Your task to perform on an android device: Go to CNN.com Image 0: 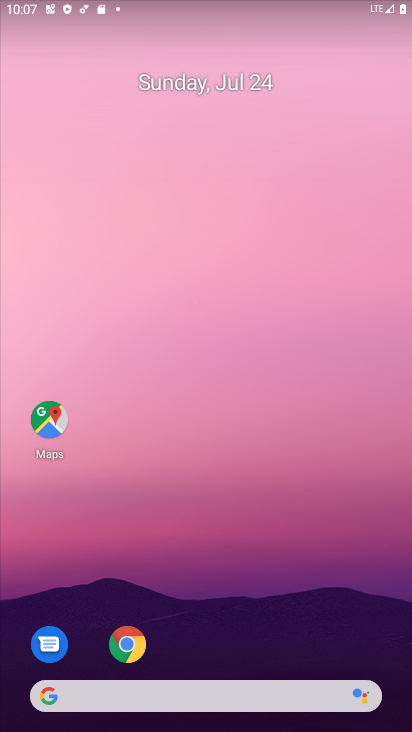
Step 0: click (135, 643)
Your task to perform on an android device: Go to CNN.com Image 1: 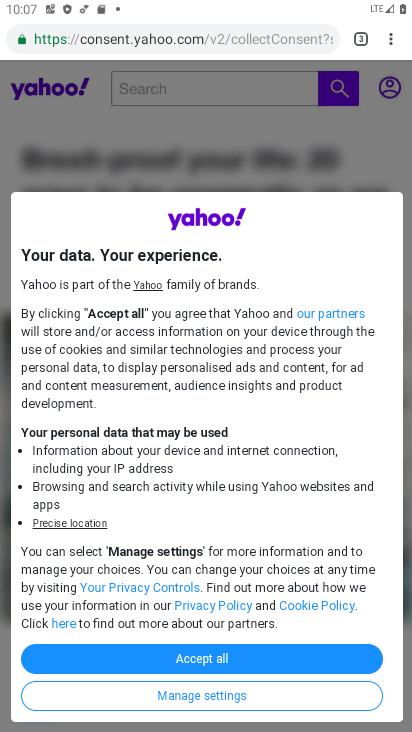
Step 1: press back button
Your task to perform on an android device: Go to CNN.com Image 2: 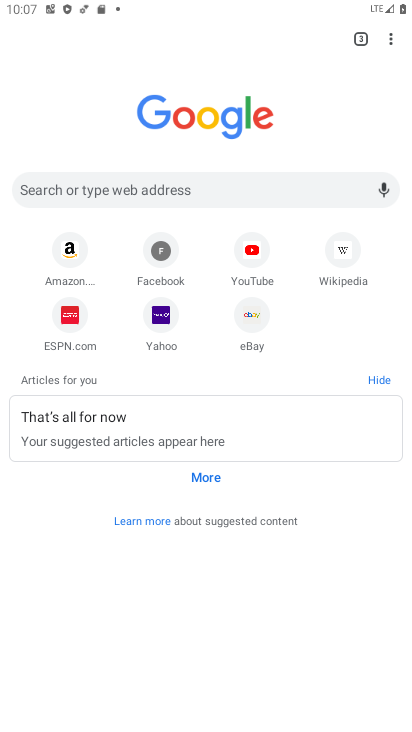
Step 2: click (144, 178)
Your task to perform on an android device: Go to CNN.com Image 3: 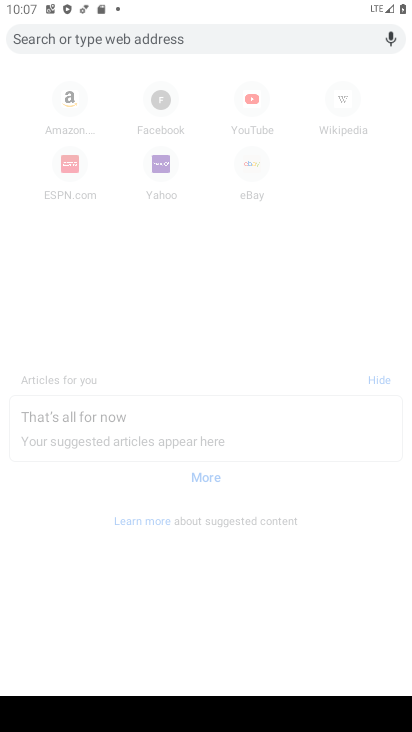
Step 3: type "CNN.com"
Your task to perform on an android device: Go to CNN.com Image 4: 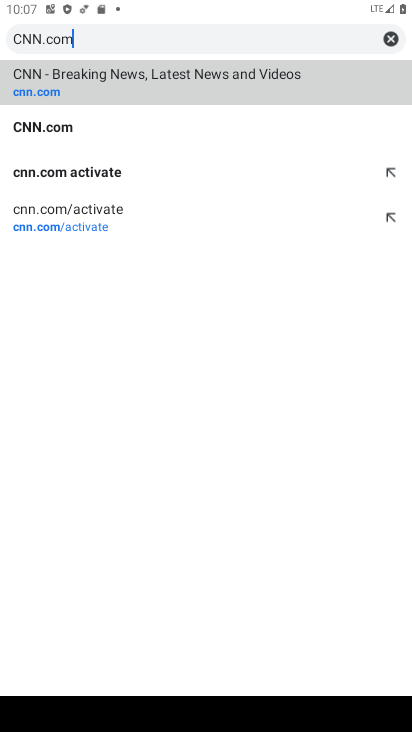
Step 4: type ""
Your task to perform on an android device: Go to CNN.com Image 5: 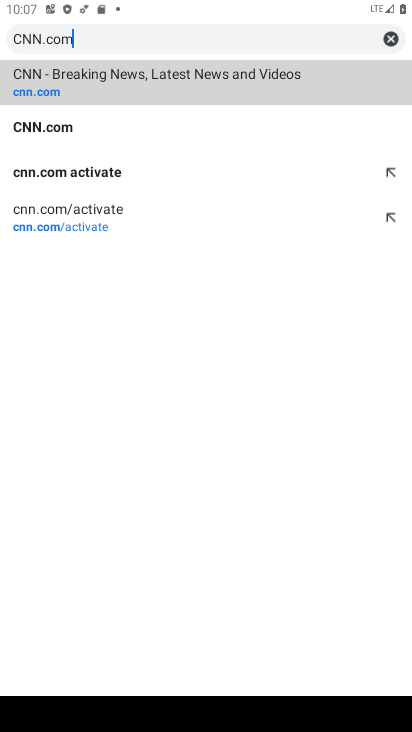
Step 5: click (133, 76)
Your task to perform on an android device: Go to CNN.com Image 6: 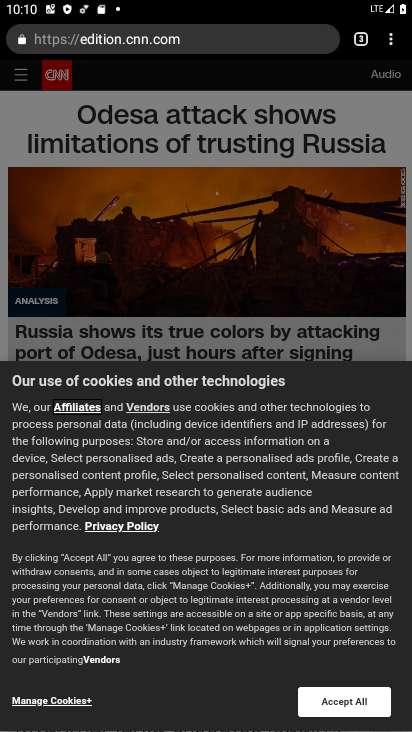
Step 6: task complete